Your task to perform on an android device: turn off translation in the chrome app Image 0: 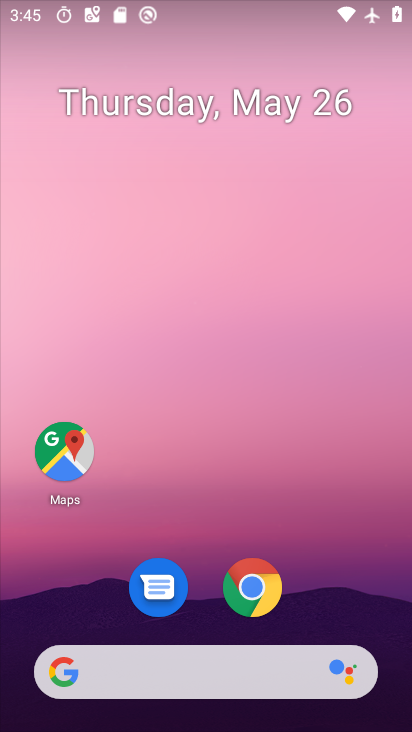
Step 0: drag from (240, 527) to (198, 293)
Your task to perform on an android device: turn off translation in the chrome app Image 1: 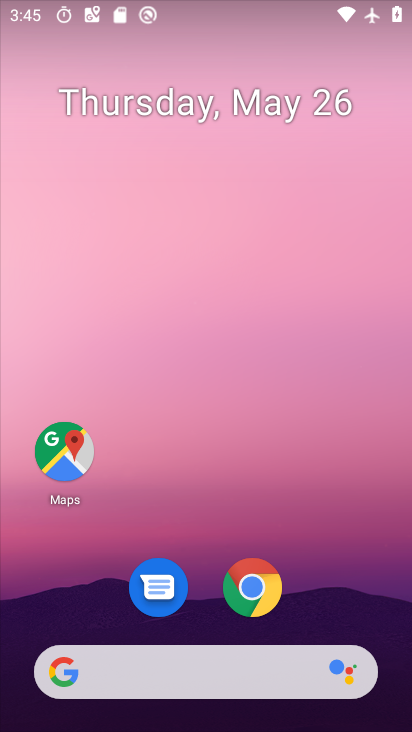
Step 1: drag from (309, 555) to (256, 297)
Your task to perform on an android device: turn off translation in the chrome app Image 2: 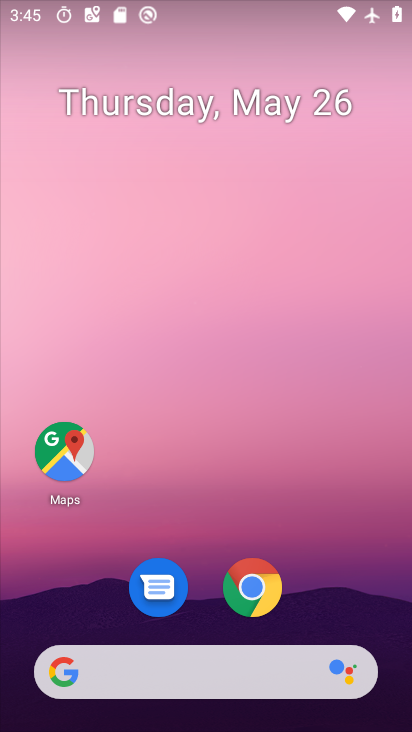
Step 2: drag from (228, 671) to (251, 369)
Your task to perform on an android device: turn off translation in the chrome app Image 3: 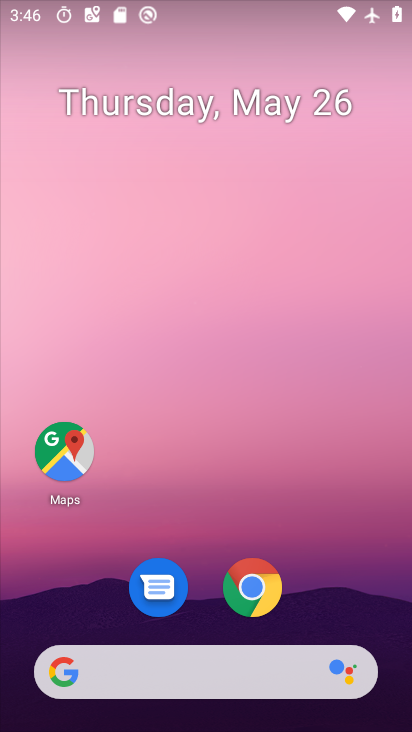
Step 3: drag from (266, 730) to (265, 360)
Your task to perform on an android device: turn off translation in the chrome app Image 4: 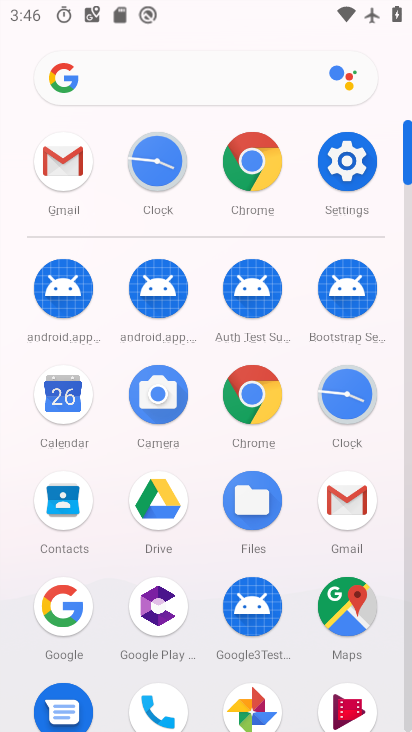
Step 4: click (255, 170)
Your task to perform on an android device: turn off translation in the chrome app Image 5: 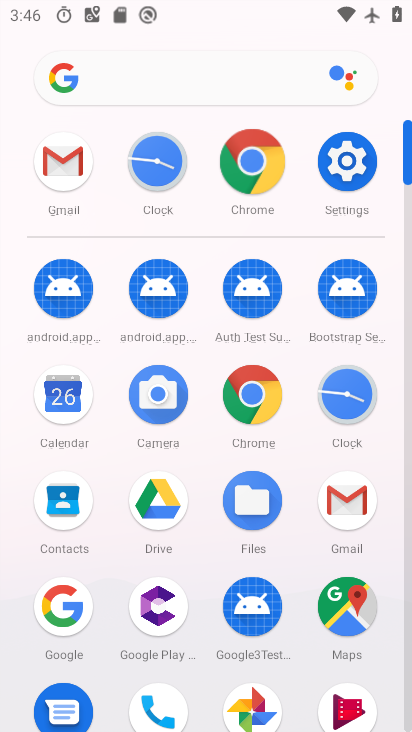
Step 5: click (255, 170)
Your task to perform on an android device: turn off translation in the chrome app Image 6: 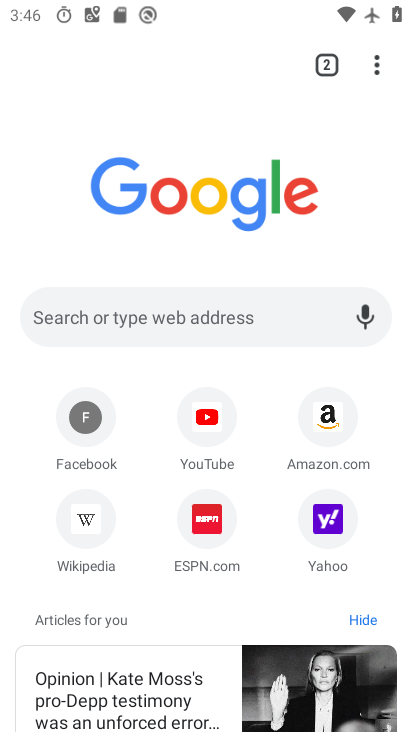
Step 6: click (371, 62)
Your task to perform on an android device: turn off translation in the chrome app Image 7: 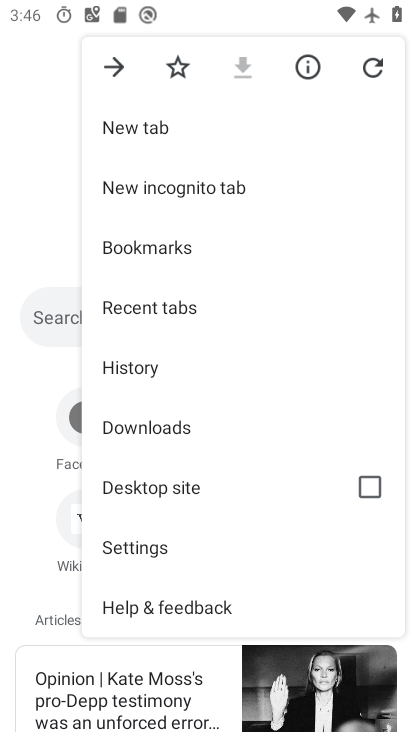
Step 7: click (144, 552)
Your task to perform on an android device: turn off translation in the chrome app Image 8: 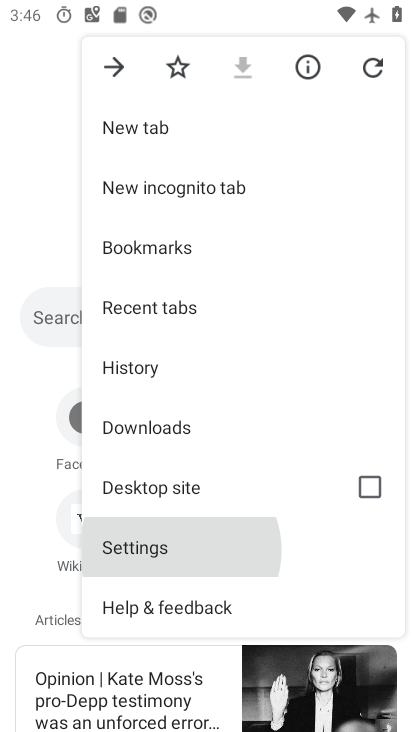
Step 8: click (144, 552)
Your task to perform on an android device: turn off translation in the chrome app Image 9: 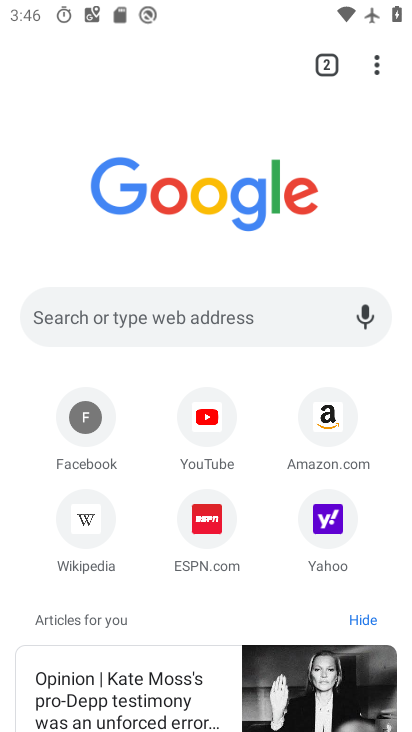
Step 9: click (144, 552)
Your task to perform on an android device: turn off translation in the chrome app Image 10: 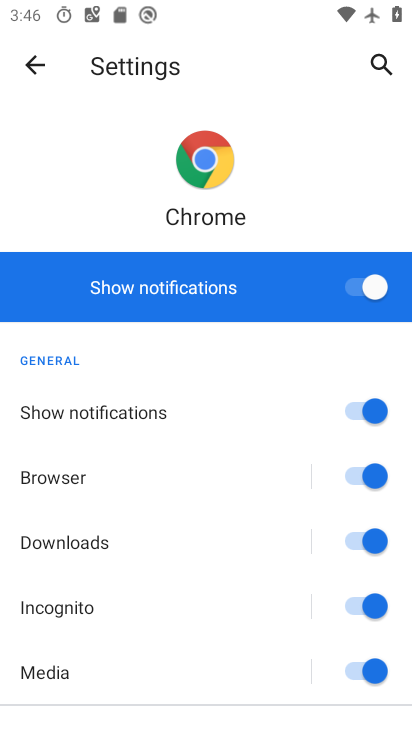
Step 10: click (29, 67)
Your task to perform on an android device: turn off translation in the chrome app Image 11: 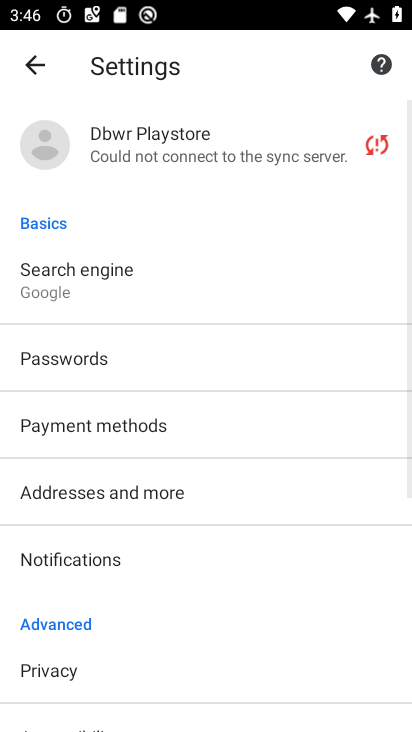
Step 11: drag from (85, 593) to (74, 369)
Your task to perform on an android device: turn off translation in the chrome app Image 12: 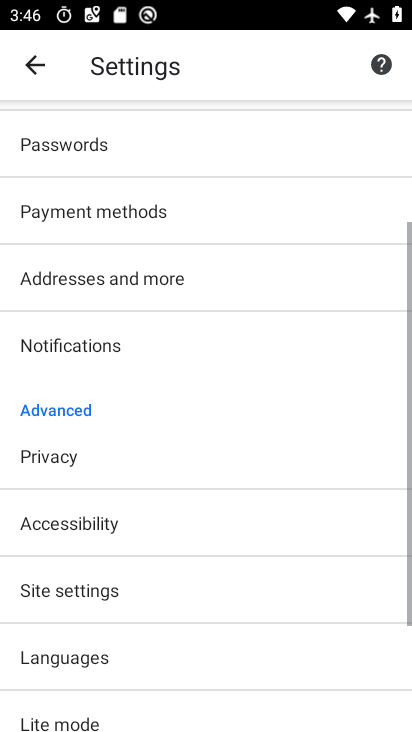
Step 12: drag from (130, 523) to (113, 182)
Your task to perform on an android device: turn off translation in the chrome app Image 13: 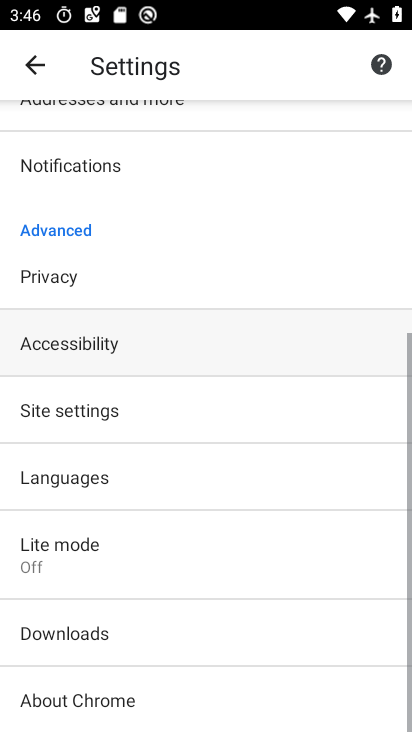
Step 13: drag from (112, 565) to (93, 176)
Your task to perform on an android device: turn off translation in the chrome app Image 14: 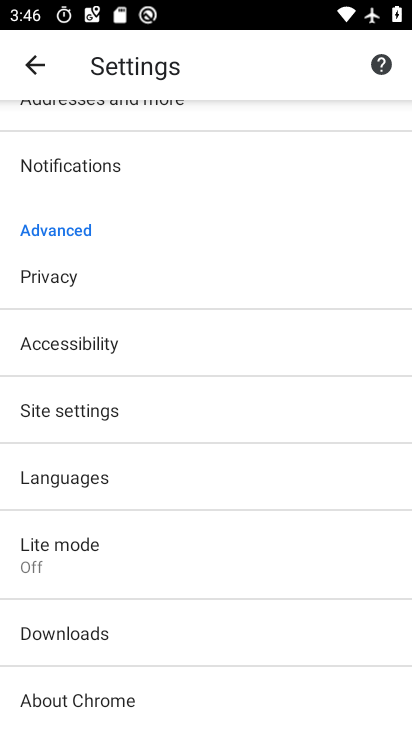
Step 14: click (58, 475)
Your task to perform on an android device: turn off translation in the chrome app Image 15: 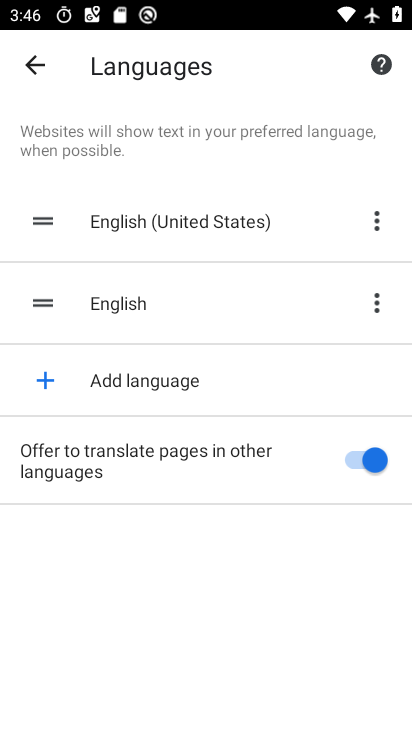
Step 15: click (361, 456)
Your task to perform on an android device: turn off translation in the chrome app Image 16: 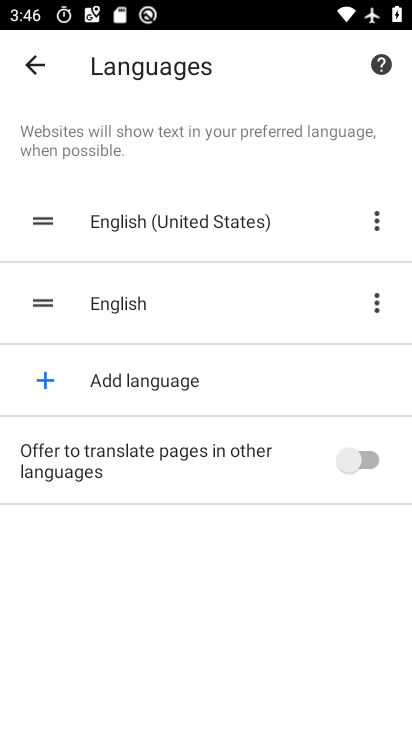
Step 16: task complete